Your task to perform on an android device: see tabs open on other devices in the chrome app Image 0: 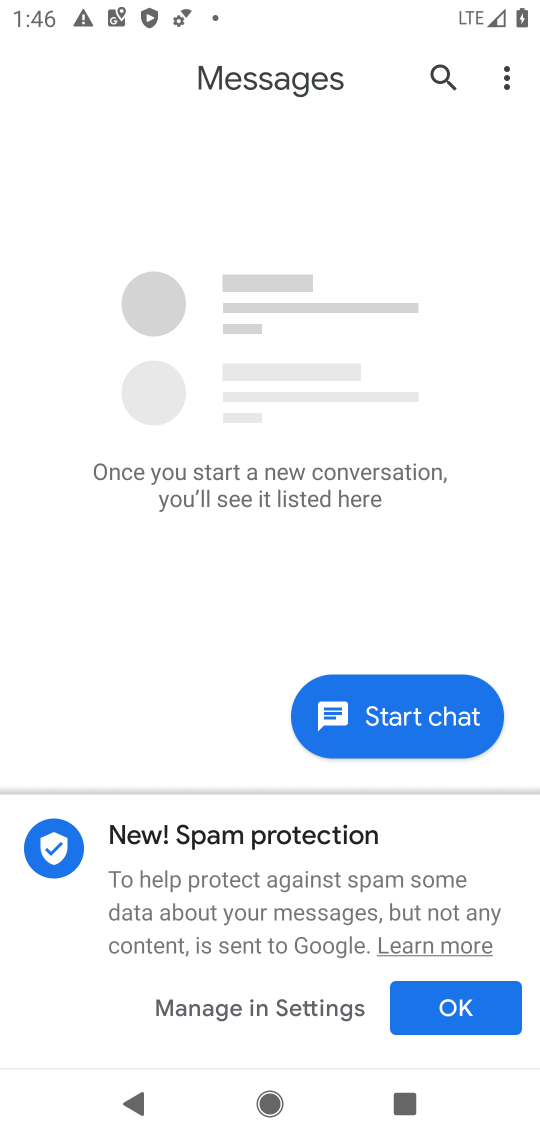
Step 0: press home button
Your task to perform on an android device: see tabs open on other devices in the chrome app Image 1: 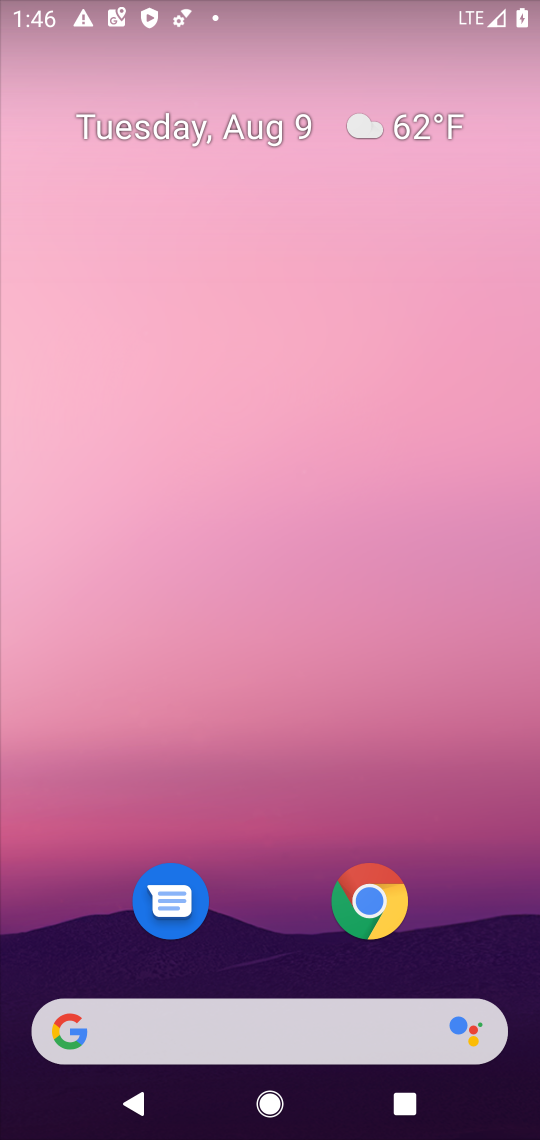
Step 1: click (373, 906)
Your task to perform on an android device: see tabs open on other devices in the chrome app Image 2: 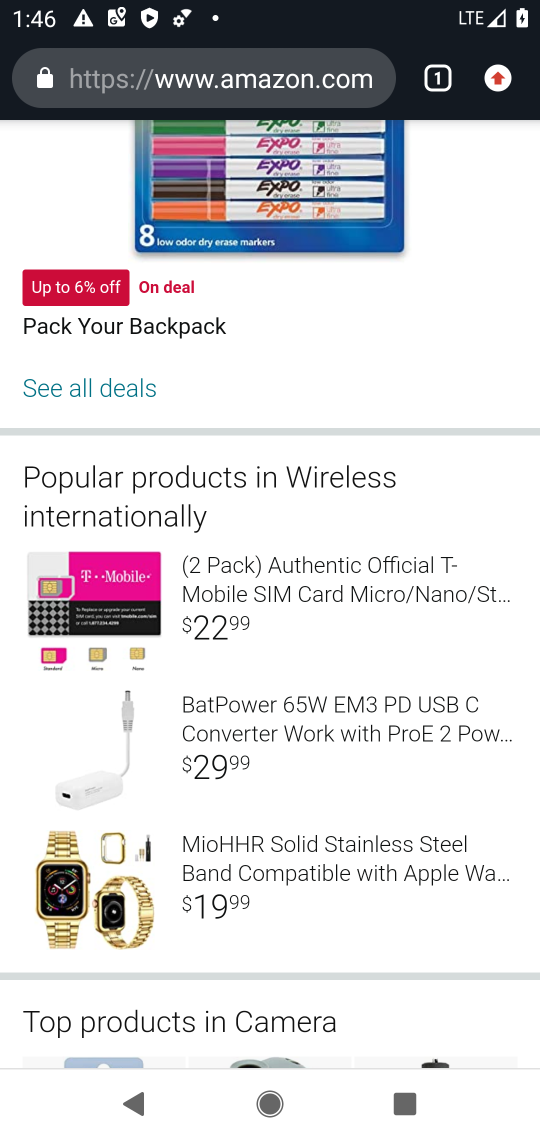
Step 2: click (496, 77)
Your task to perform on an android device: see tabs open on other devices in the chrome app Image 3: 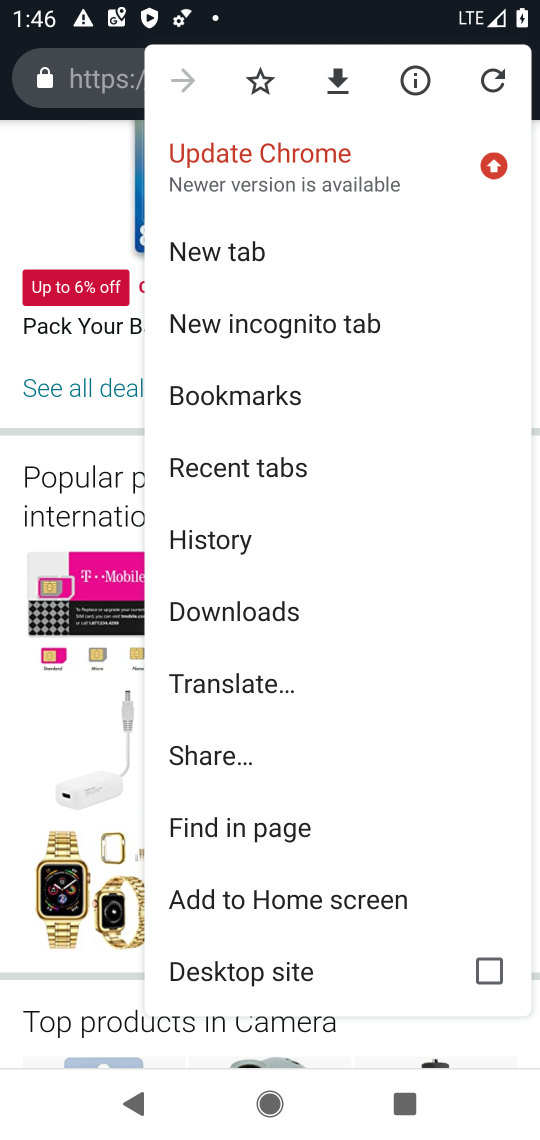
Step 3: click (226, 476)
Your task to perform on an android device: see tabs open on other devices in the chrome app Image 4: 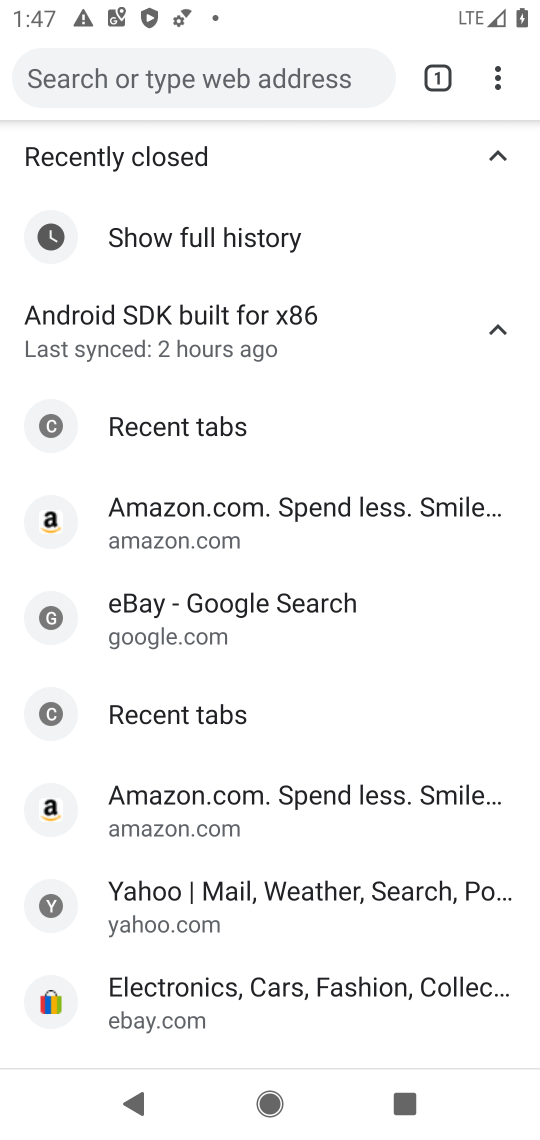
Step 4: task complete